Your task to perform on an android device: turn smart compose on in the gmail app Image 0: 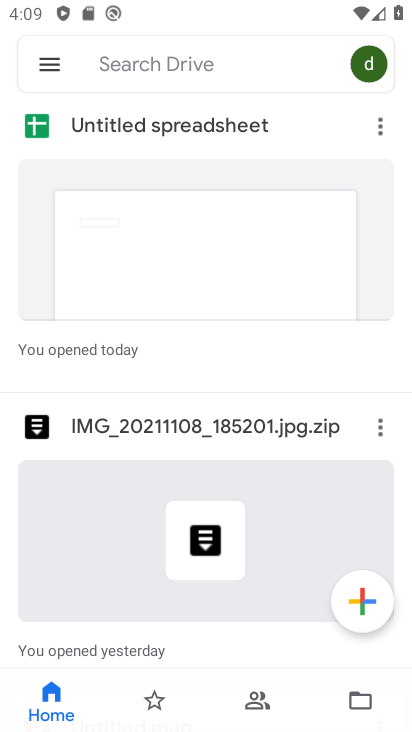
Step 0: press home button
Your task to perform on an android device: turn smart compose on in the gmail app Image 1: 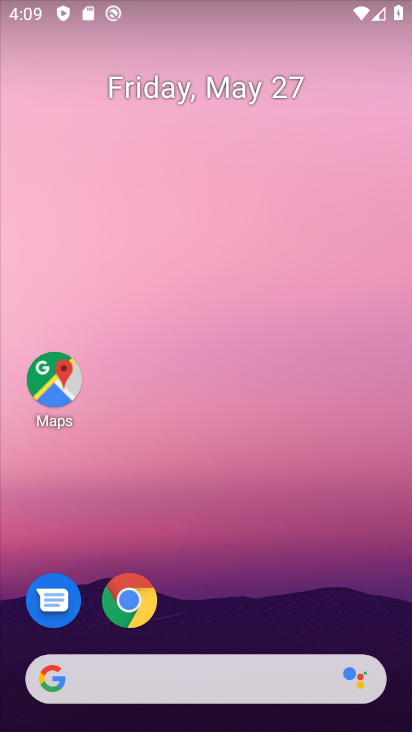
Step 1: drag from (241, 178) to (256, 3)
Your task to perform on an android device: turn smart compose on in the gmail app Image 2: 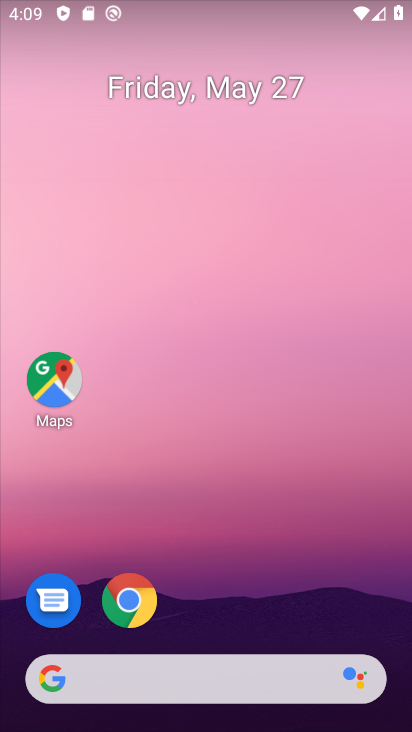
Step 2: drag from (226, 696) to (209, 11)
Your task to perform on an android device: turn smart compose on in the gmail app Image 3: 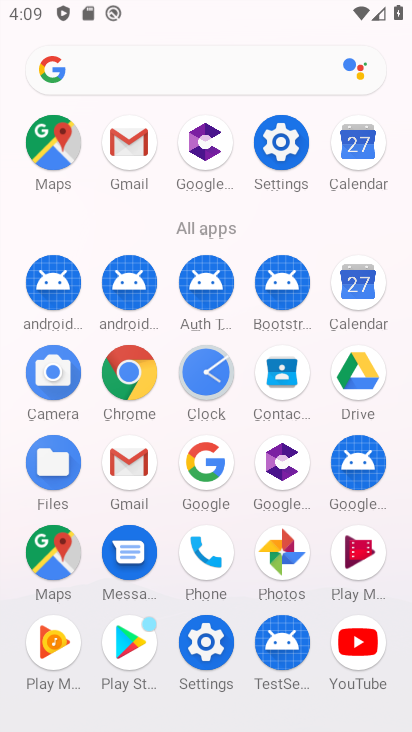
Step 3: click (127, 214)
Your task to perform on an android device: turn smart compose on in the gmail app Image 4: 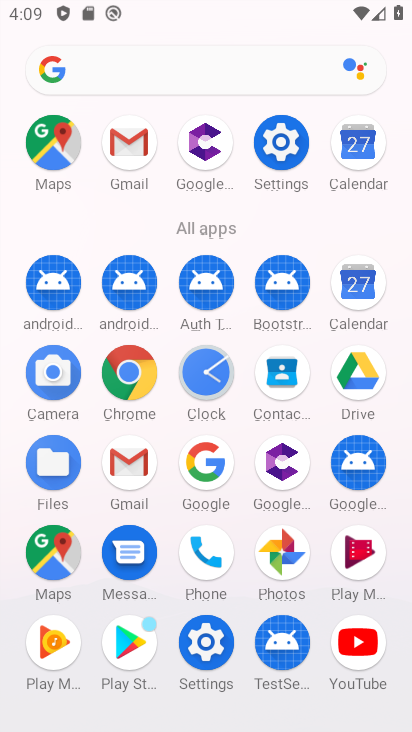
Step 4: click (132, 136)
Your task to perform on an android device: turn smart compose on in the gmail app Image 5: 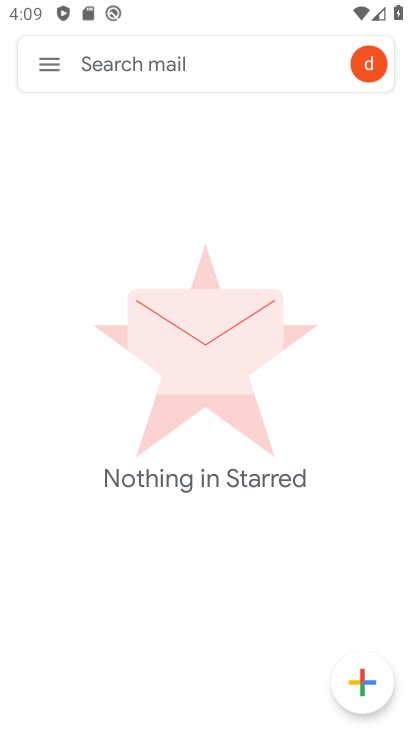
Step 5: click (50, 59)
Your task to perform on an android device: turn smart compose on in the gmail app Image 6: 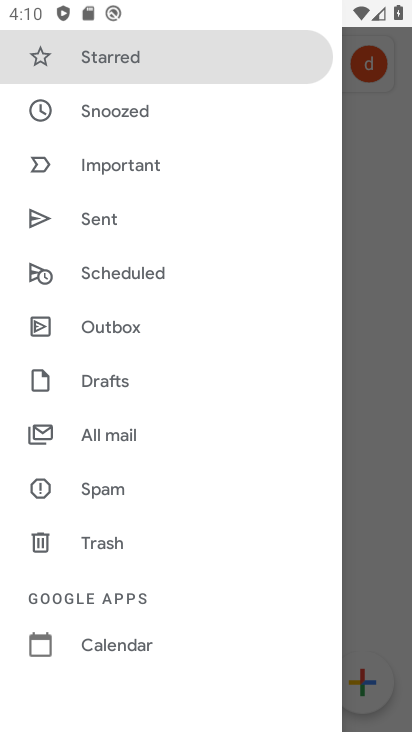
Step 6: drag from (162, 287) to (185, 120)
Your task to perform on an android device: turn smart compose on in the gmail app Image 7: 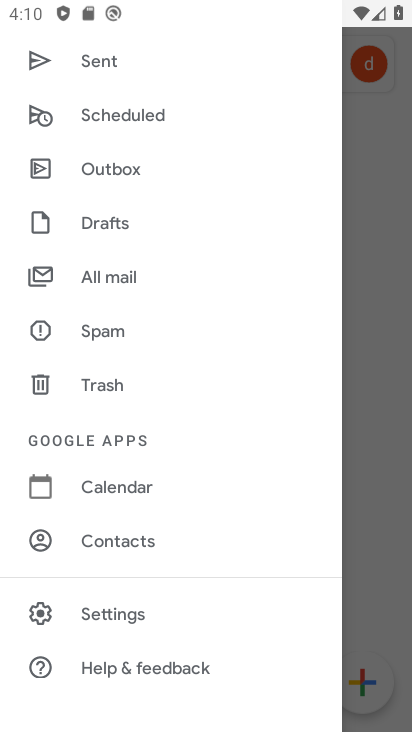
Step 7: click (112, 613)
Your task to perform on an android device: turn smart compose on in the gmail app Image 8: 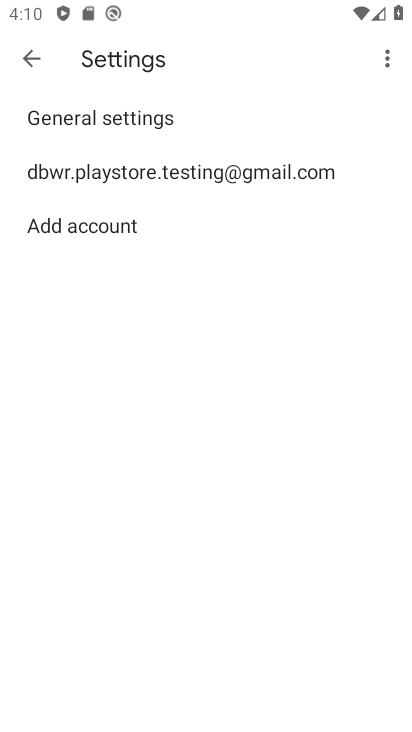
Step 8: click (86, 175)
Your task to perform on an android device: turn smart compose on in the gmail app Image 9: 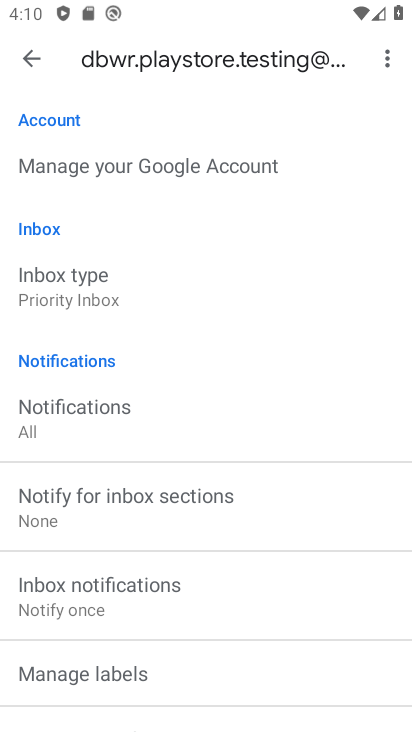
Step 9: drag from (135, 565) to (224, 12)
Your task to perform on an android device: turn smart compose on in the gmail app Image 10: 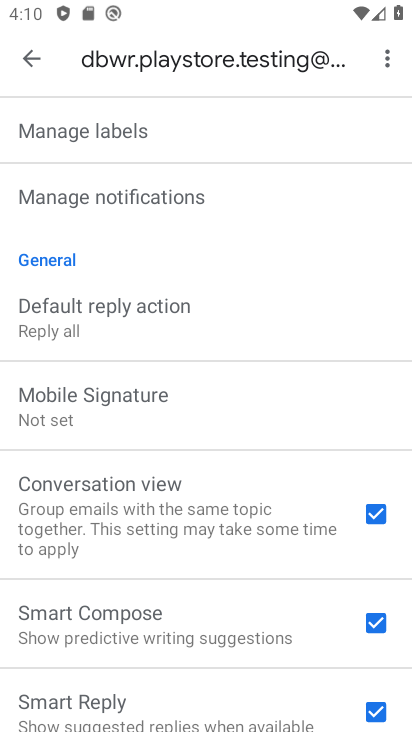
Step 10: drag from (172, 570) to (248, 309)
Your task to perform on an android device: turn smart compose on in the gmail app Image 11: 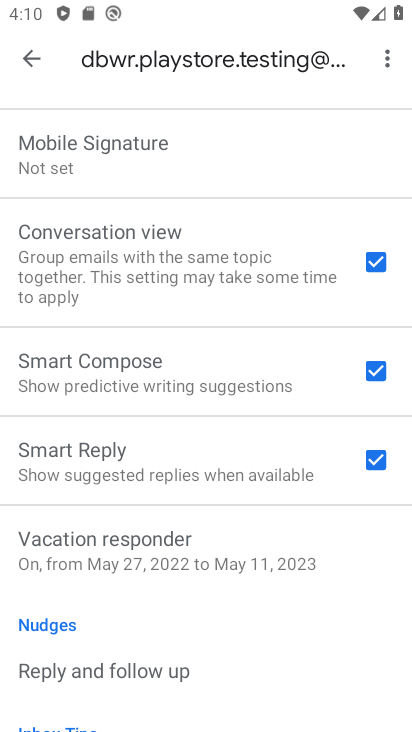
Step 11: click (363, 371)
Your task to perform on an android device: turn smart compose on in the gmail app Image 12: 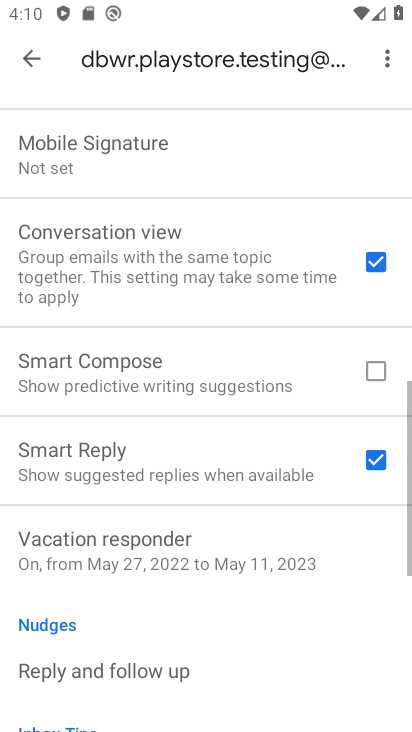
Step 12: click (363, 371)
Your task to perform on an android device: turn smart compose on in the gmail app Image 13: 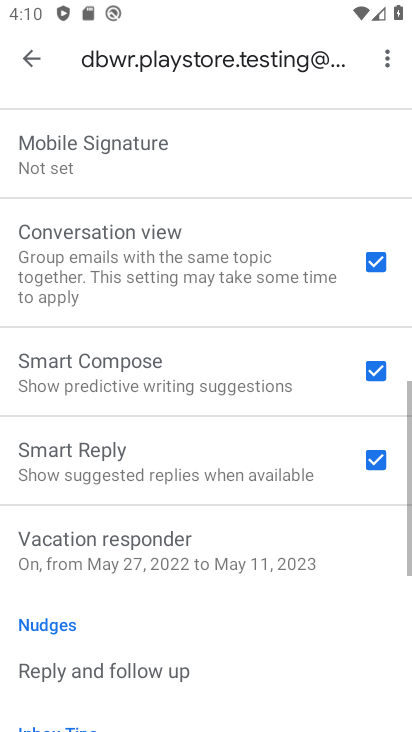
Step 13: task complete